Your task to perform on an android device: Go to location settings Image 0: 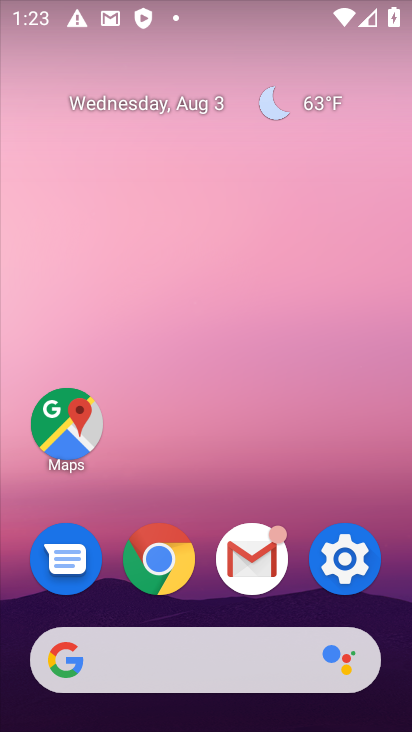
Step 0: press home button
Your task to perform on an android device: Go to location settings Image 1: 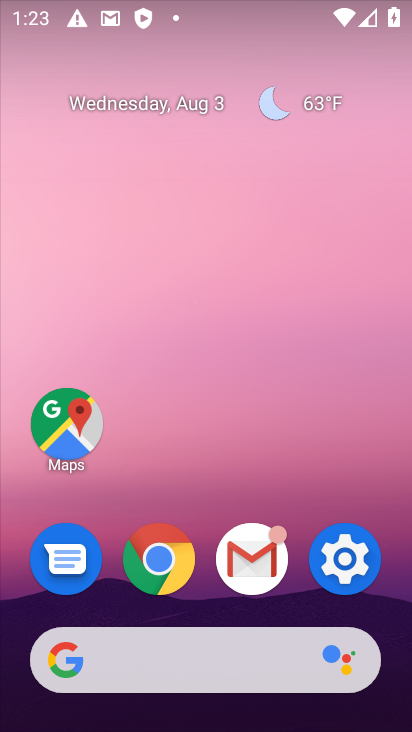
Step 1: click (346, 552)
Your task to perform on an android device: Go to location settings Image 2: 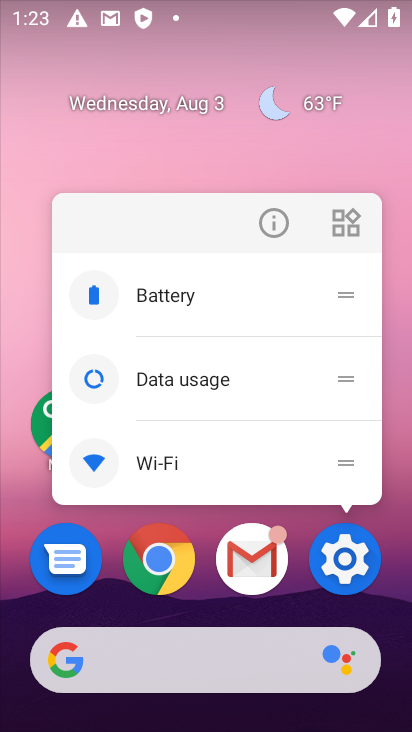
Step 2: click (352, 559)
Your task to perform on an android device: Go to location settings Image 3: 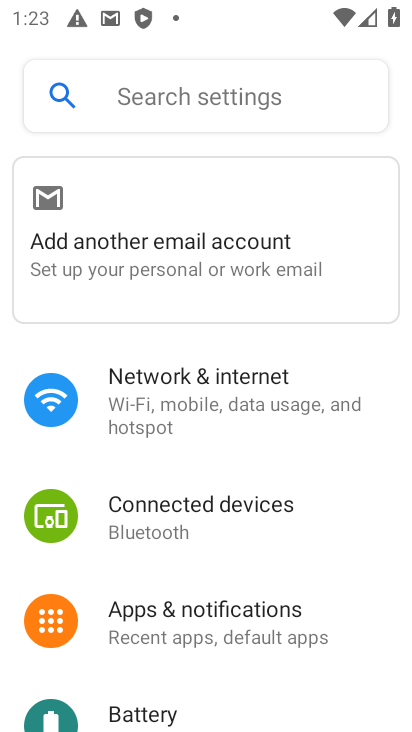
Step 3: click (169, 111)
Your task to perform on an android device: Go to location settings Image 4: 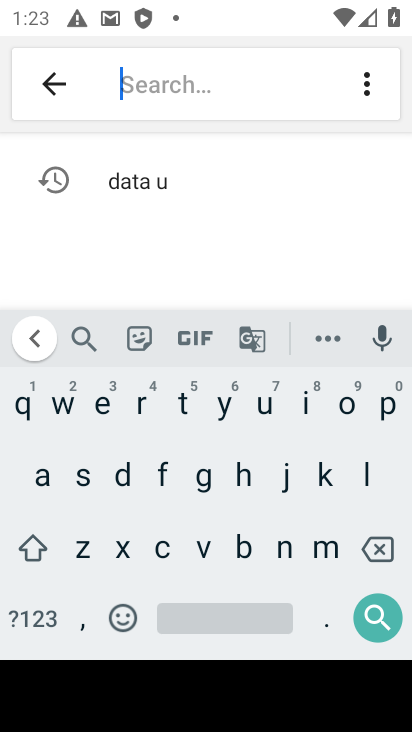
Step 4: click (360, 483)
Your task to perform on an android device: Go to location settings Image 5: 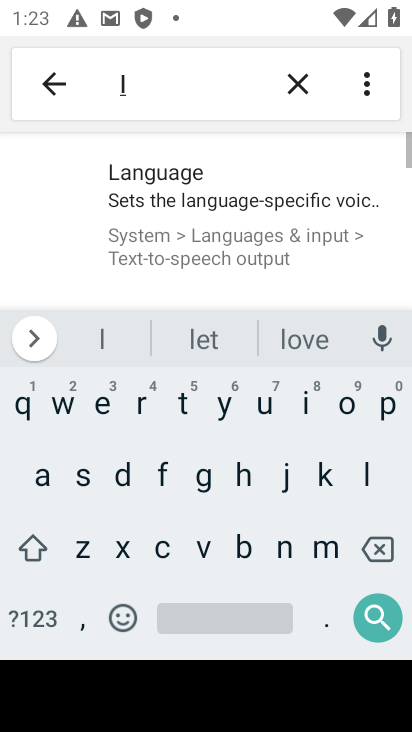
Step 5: click (336, 401)
Your task to perform on an android device: Go to location settings Image 6: 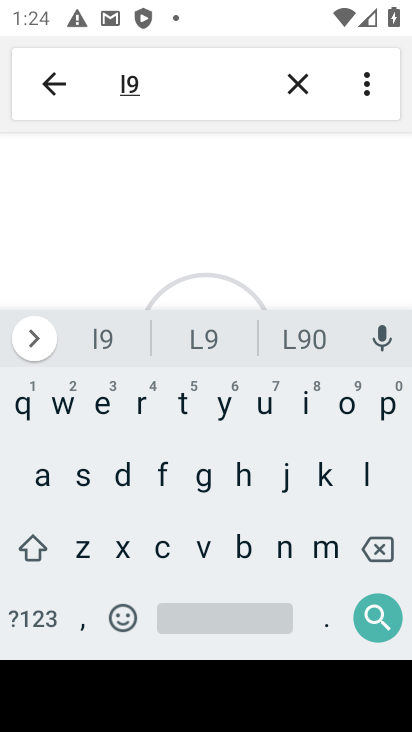
Step 6: click (384, 557)
Your task to perform on an android device: Go to location settings Image 7: 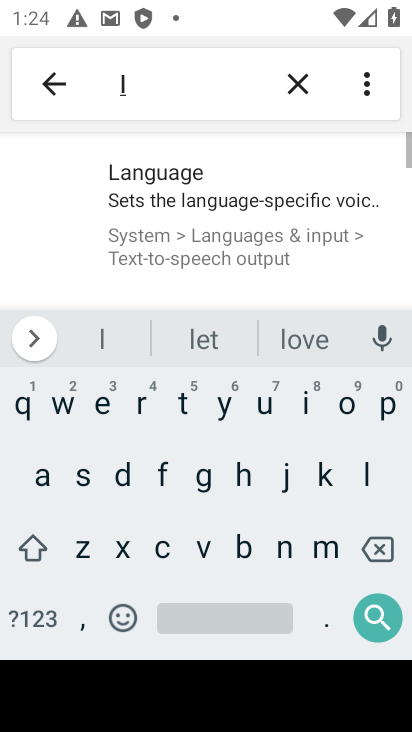
Step 7: click (338, 408)
Your task to perform on an android device: Go to location settings Image 8: 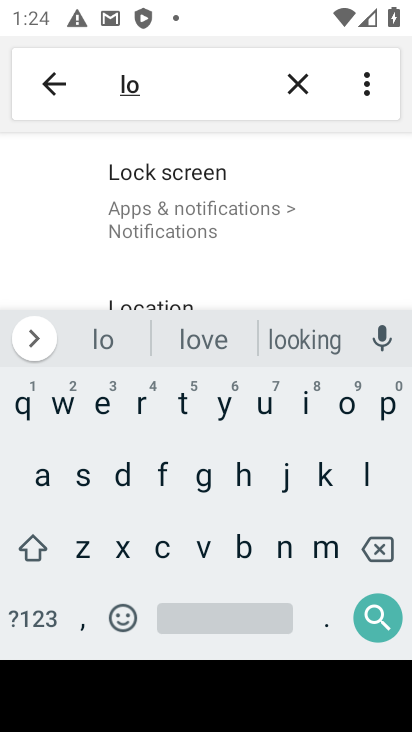
Step 8: drag from (222, 282) to (238, 193)
Your task to perform on an android device: Go to location settings Image 9: 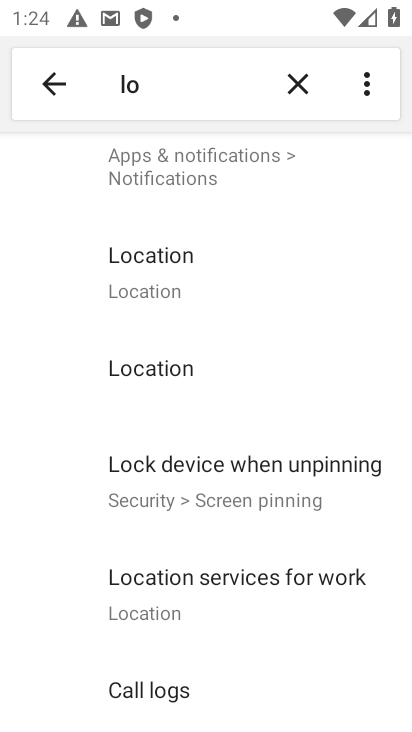
Step 9: click (180, 260)
Your task to perform on an android device: Go to location settings Image 10: 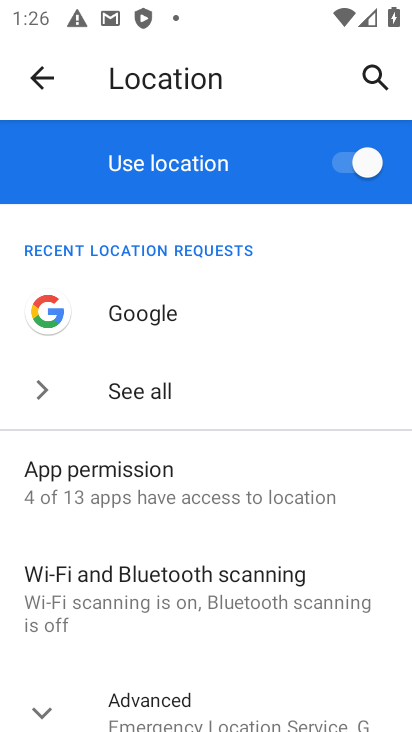
Step 10: task complete